Your task to perform on an android device: empty trash in google photos Image 0: 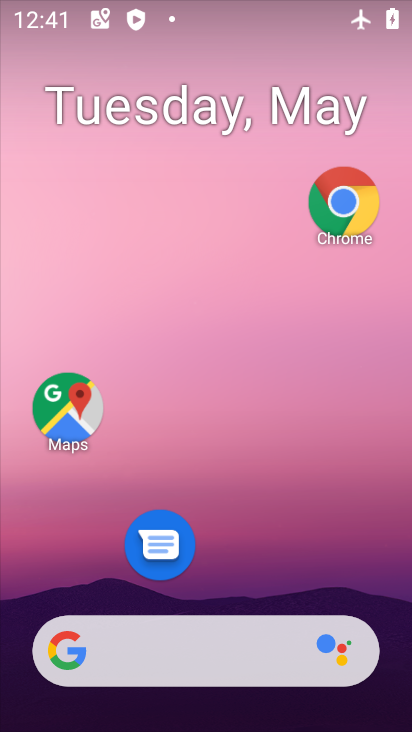
Step 0: drag from (214, 586) to (198, 104)
Your task to perform on an android device: empty trash in google photos Image 1: 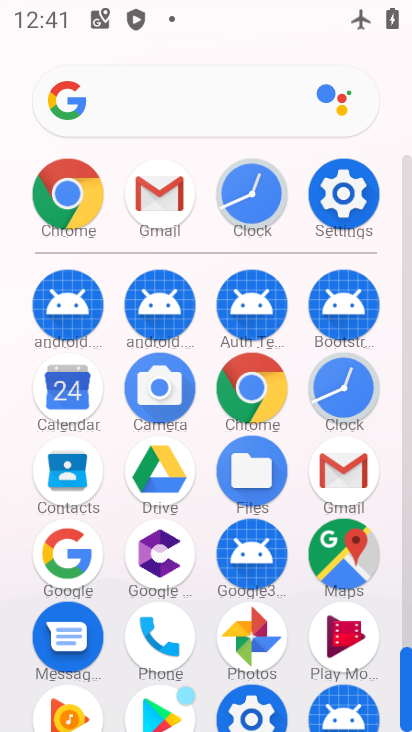
Step 1: click (260, 649)
Your task to perform on an android device: empty trash in google photos Image 2: 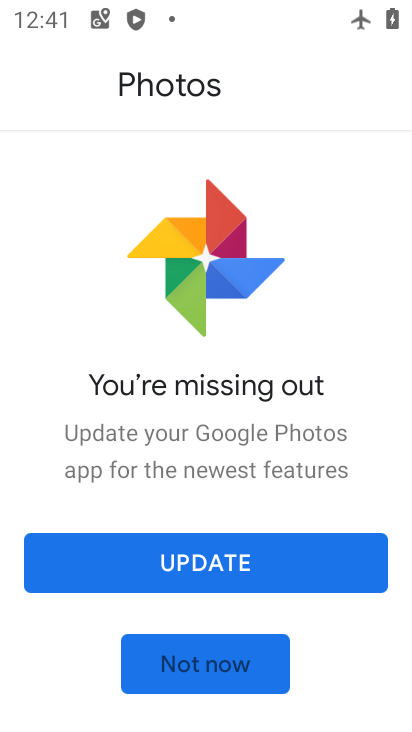
Step 2: click (182, 669)
Your task to perform on an android device: empty trash in google photos Image 3: 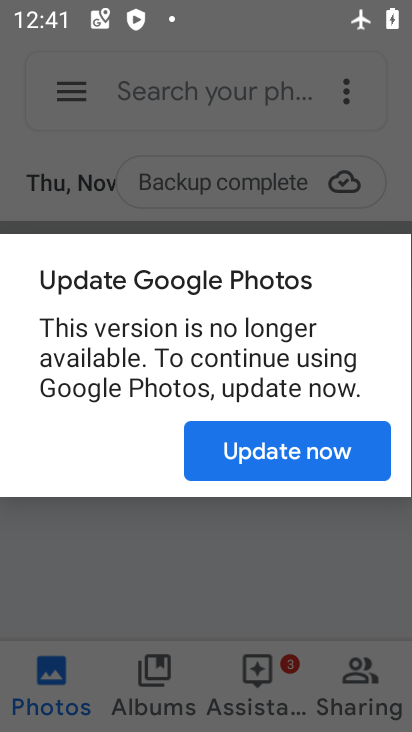
Step 3: click (258, 455)
Your task to perform on an android device: empty trash in google photos Image 4: 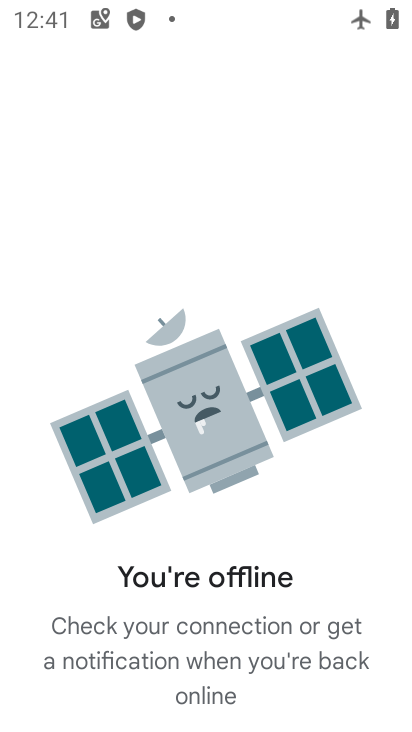
Step 4: press back button
Your task to perform on an android device: empty trash in google photos Image 5: 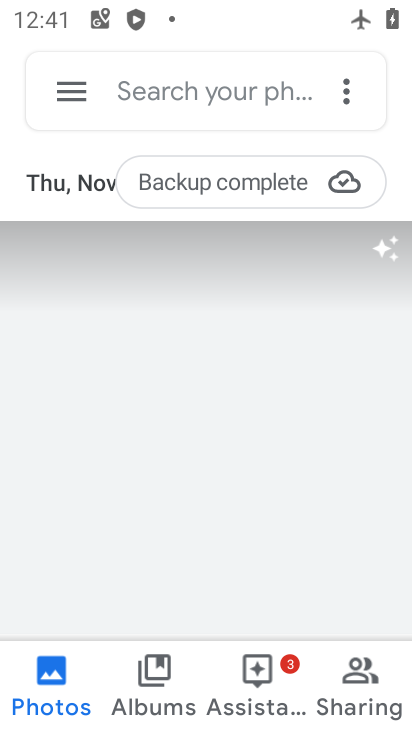
Step 5: click (78, 105)
Your task to perform on an android device: empty trash in google photos Image 6: 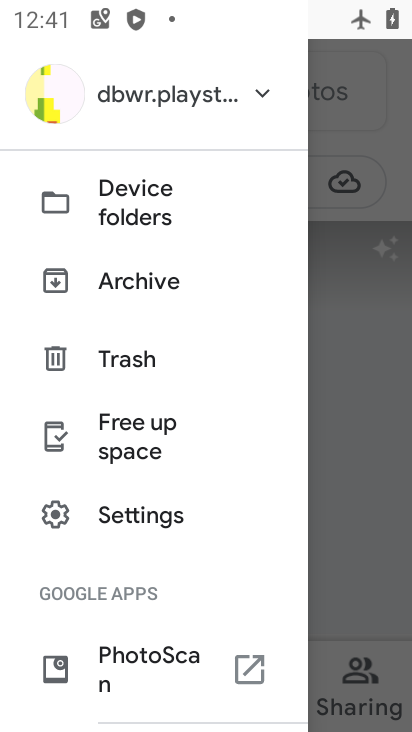
Step 6: click (141, 371)
Your task to perform on an android device: empty trash in google photos Image 7: 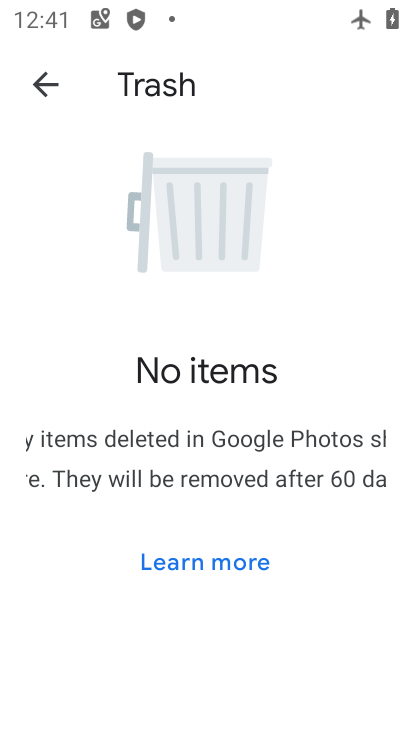
Step 7: task complete